Your task to perform on an android device: Open Google Chrome and open the bookmarks view Image 0: 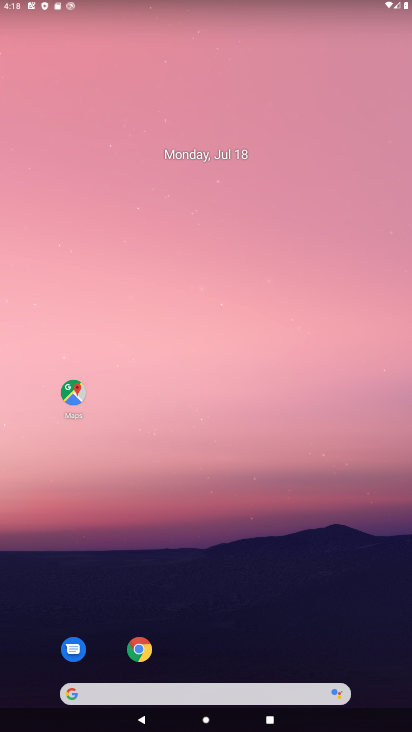
Step 0: click (143, 648)
Your task to perform on an android device: Open Google Chrome and open the bookmarks view Image 1: 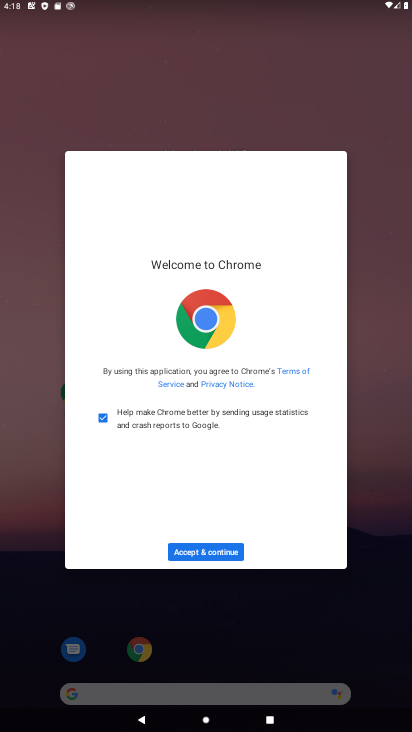
Step 1: click (211, 546)
Your task to perform on an android device: Open Google Chrome and open the bookmarks view Image 2: 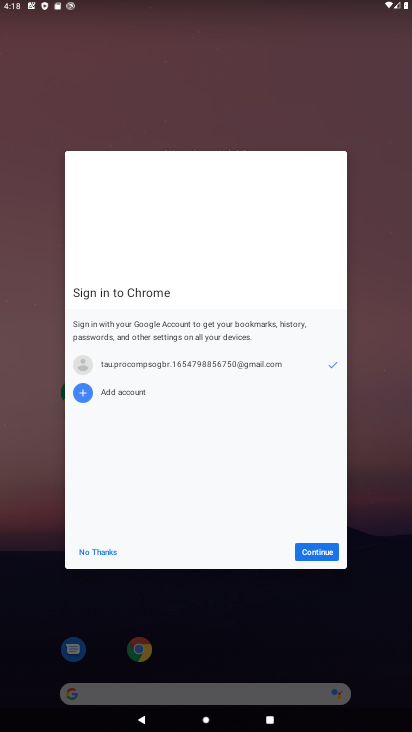
Step 2: click (211, 546)
Your task to perform on an android device: Open Google Chrome and open the bookmarks view Image 3: 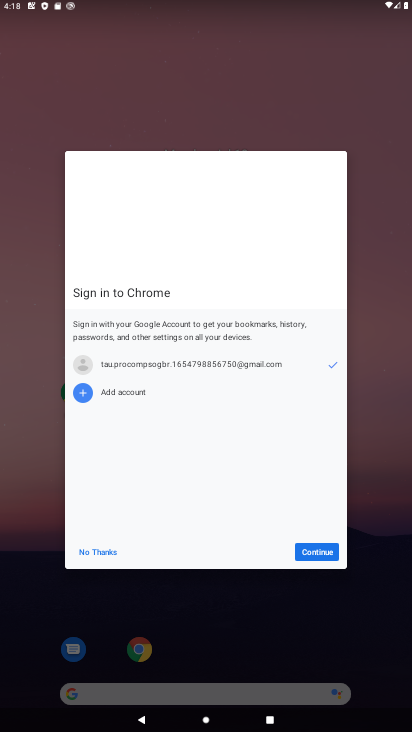
Step 3: click (211, 546)
Your task to perform on an android device: Open Google Chrome and open the bookmarks view Image 4: 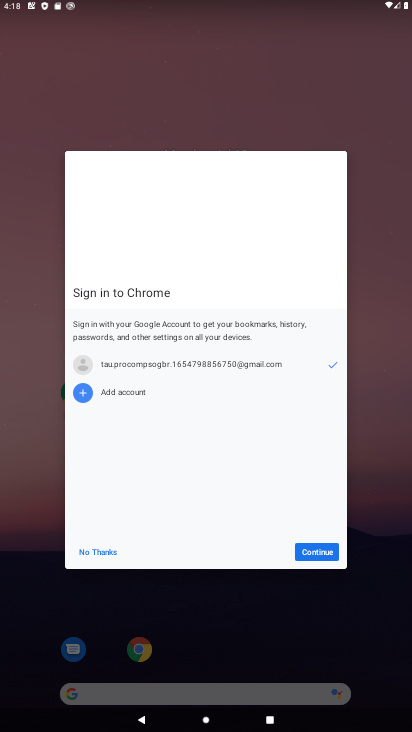
Step 4: click (211, 546)
Your task to perform on an android device: Open Google Chrome and open the bookmarks view Image 5: 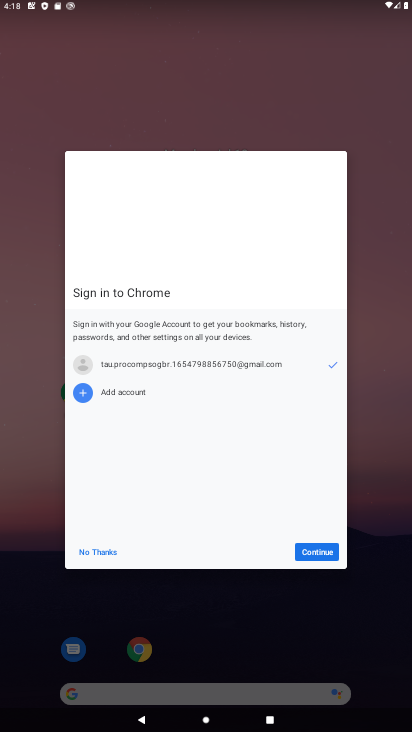
Step 5: click (211, 546)
Your task to perform on an android device: Open Google Chrome and open the bookmarks view Image 6: 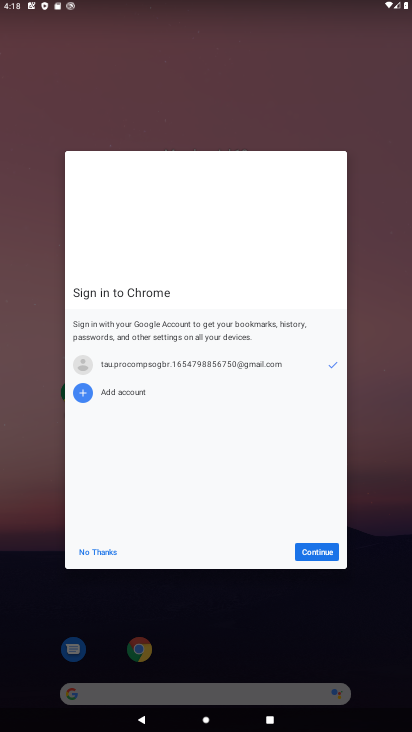
Step 6: click (211, 546)
Your task to perform on an android device: Open Google Chrome and open the bookmarks view Image 7: 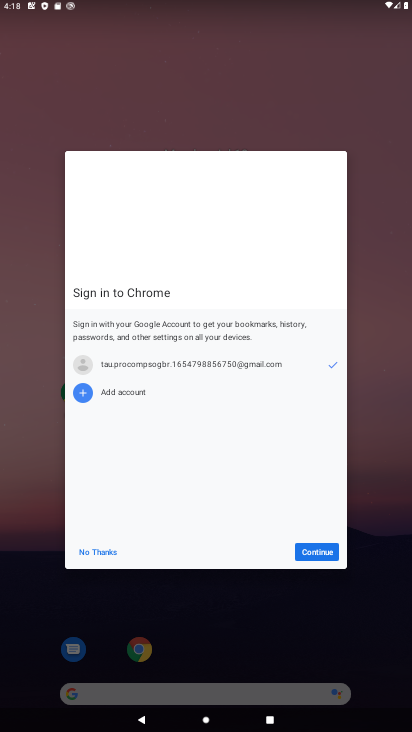
Step 7: click (211, 546)
Your task to perform on an android device: Open Google Chrome and open the bookmarks view Image 8: 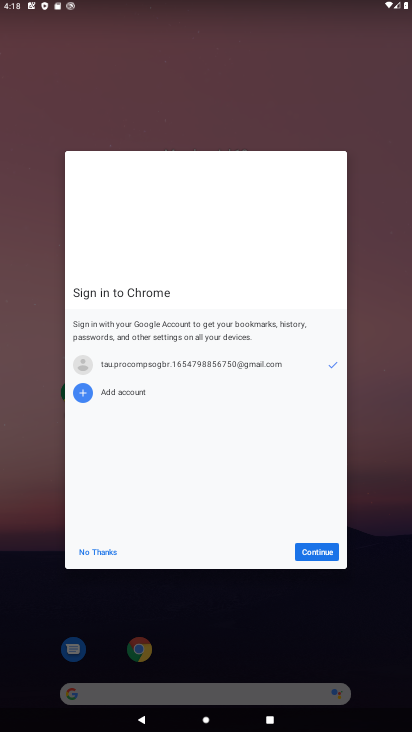
Step 8: click (305, 550)
Your task to perform on an android device: Open Google Chrome and open the bookmarks view Image 9: 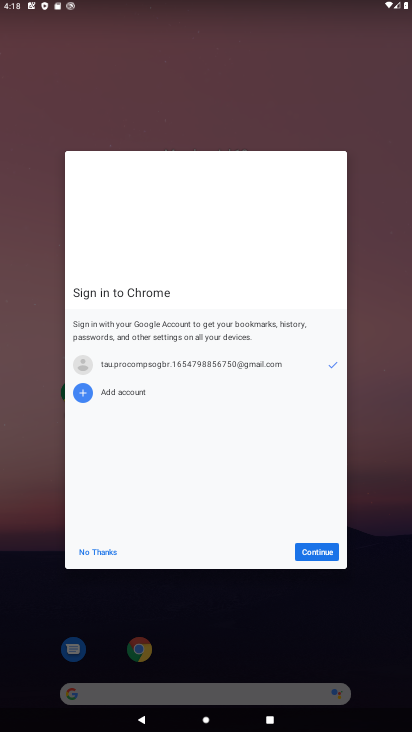
Step 9: click (305, 550)
Your task to perform on an android device: Open Google Chrome and open the bookmarks view Image 10: 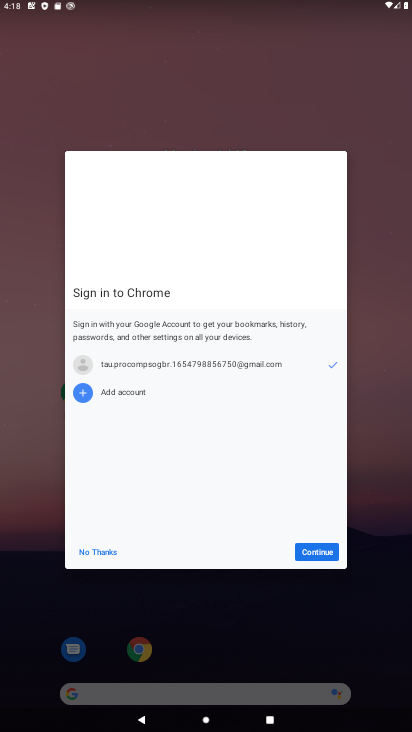
Step 10: click (305, 550)
Your task to perform on an android device: Open Google Chrome and open the bookmarks view Image 11: 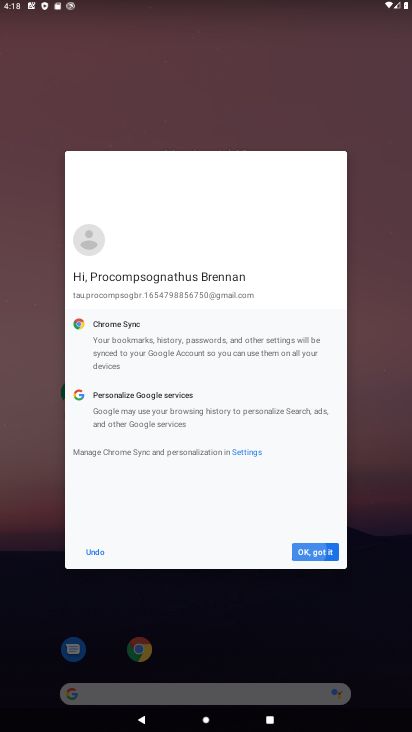
Step 11: click (305, 550)
Your task to perform on an android device: Open Google Chrome and open the bookmarks view Image 12: 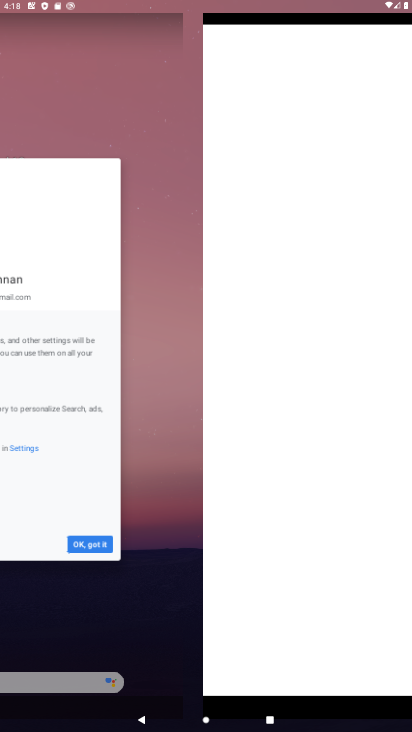
Step 12: click (305, 550)
Your task to perform on an android device: Open Google Chrome and open the bookmarks view Image 13: 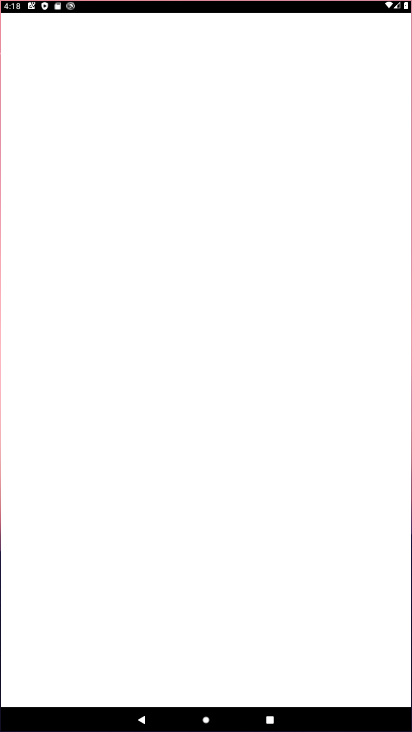
Step 13: click (305, 550)
Your task to perform on an android device: Open Google Chrome and open the bookmarks view Image 14: 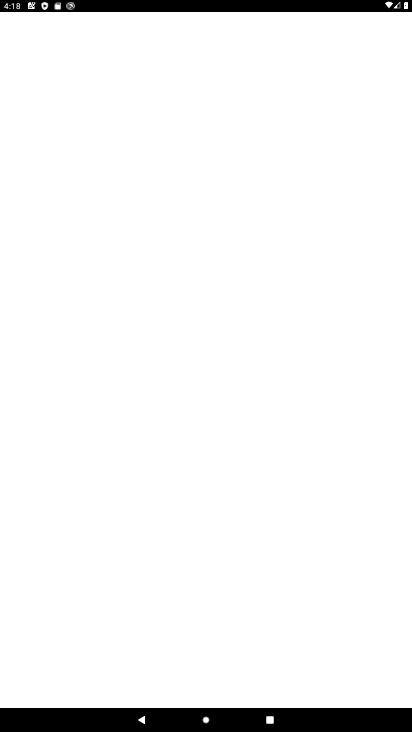
Step 14: click (305, 550)
Your task to perform on an android device: Open Google Chrome and open the bookmarks view Image 15: 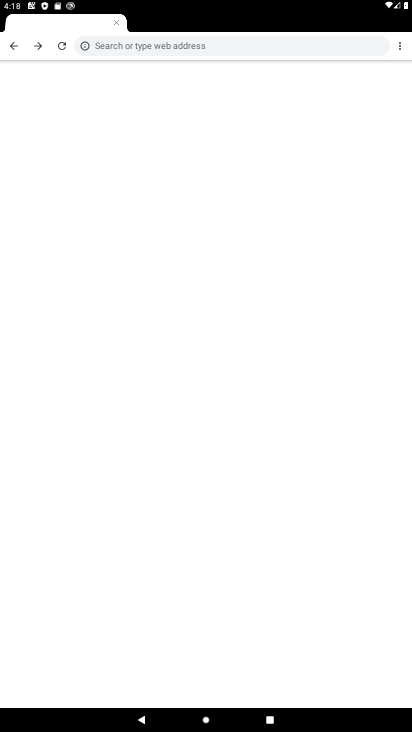
Step 15: click (305, 550)
Your task to perform on an android device: Open Google Chrome and open the bookmarks view Image 16: 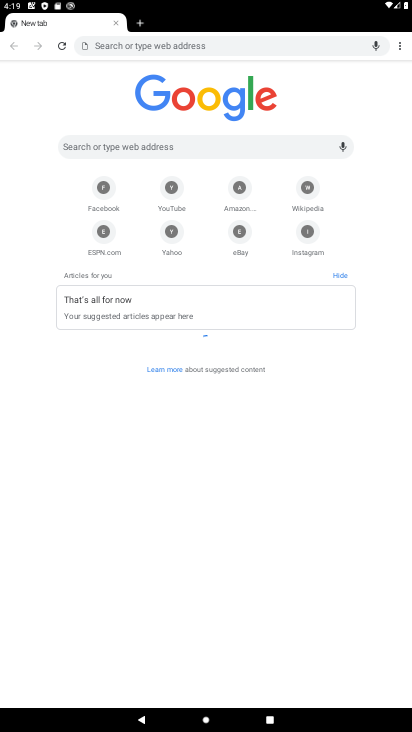
Step 16: click (396, 54)
Your task to perform on an android device: Open Google Chrome and open the bookmarks view Image 17: 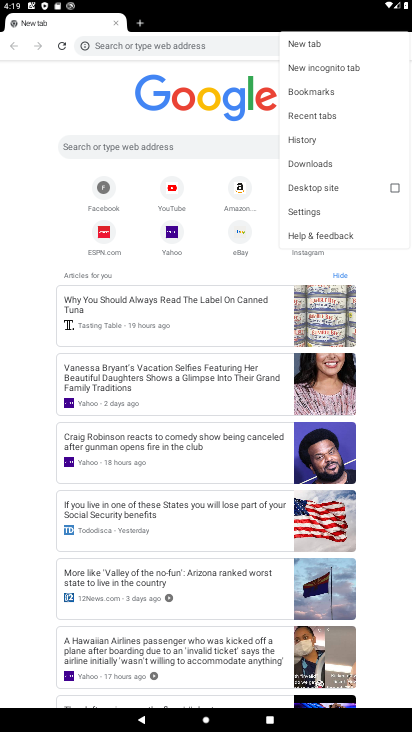
Step 17: click (322, 103)
Your task to perform on an android device: Open Google Chrome and open the bookmarks view Image 18: 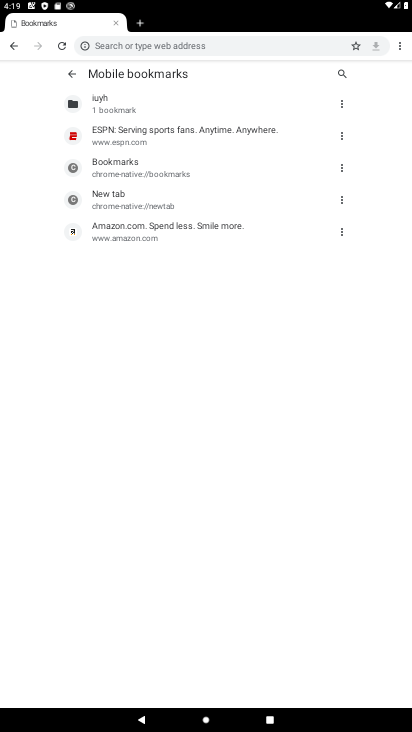
Step 18: task complete